Your task to perform on an android device: Go to calendar. Show me events next week Image 0: 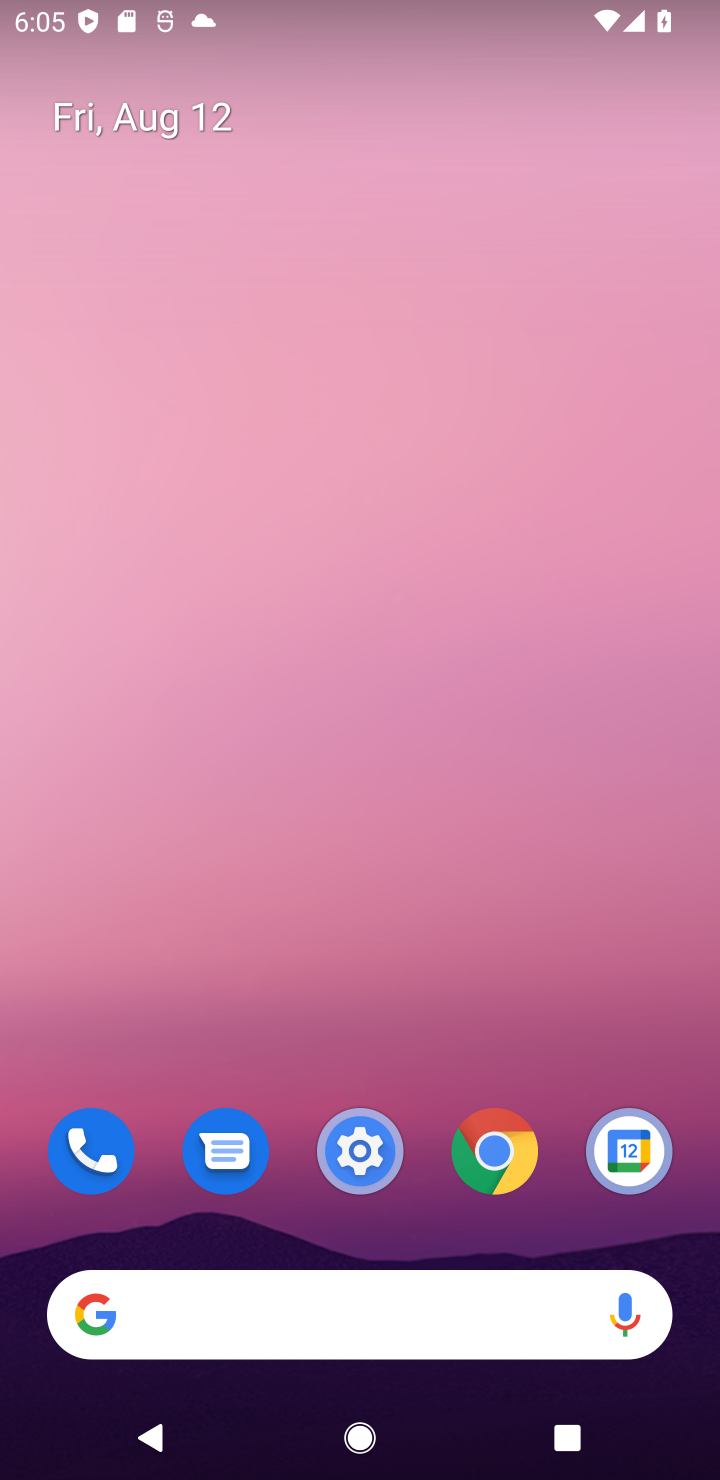
Step 0: drag from (536, 963) to (654, 120)
Your task to perform on an android device: Go to calendar. Show me events next week Image 1: 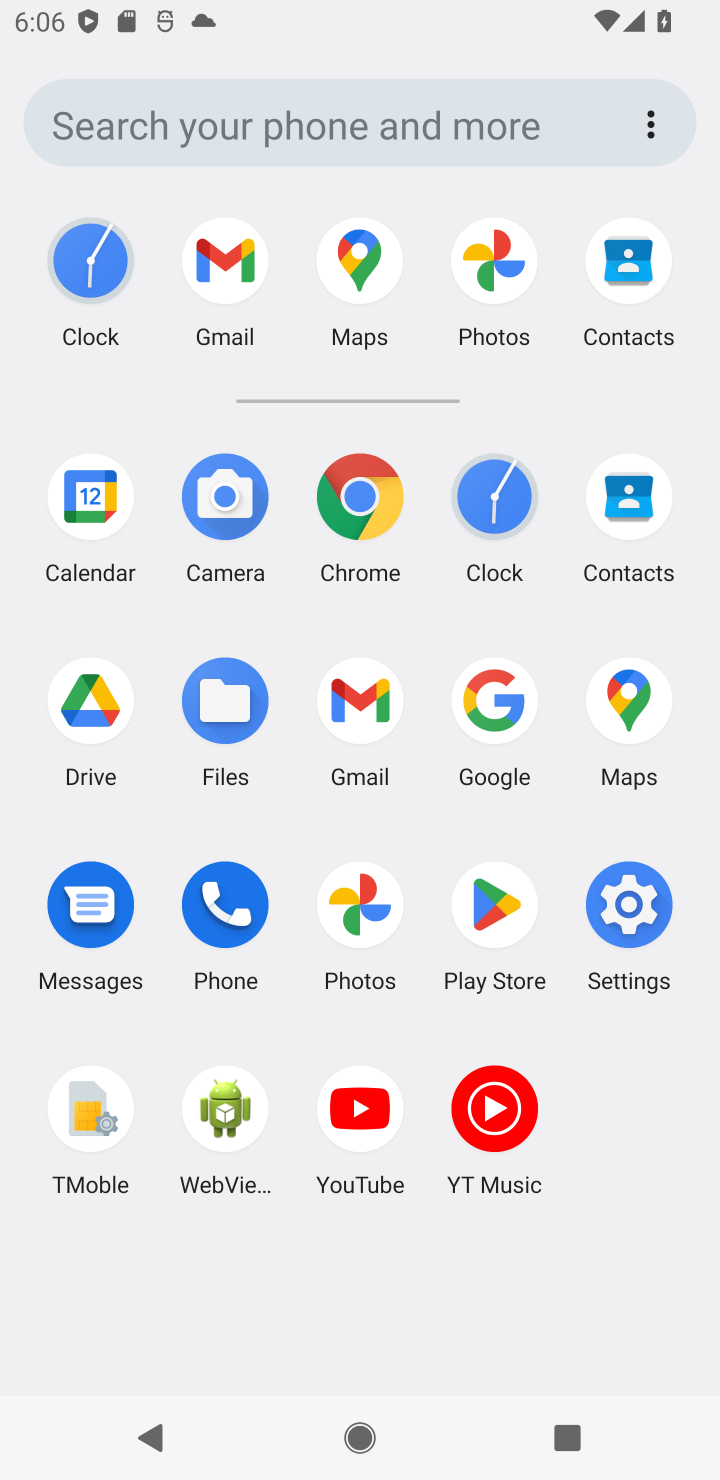
Step 1: click (94, 472)
Your task to perform on an android device: Go to calendar. Show me events next week Image 2: 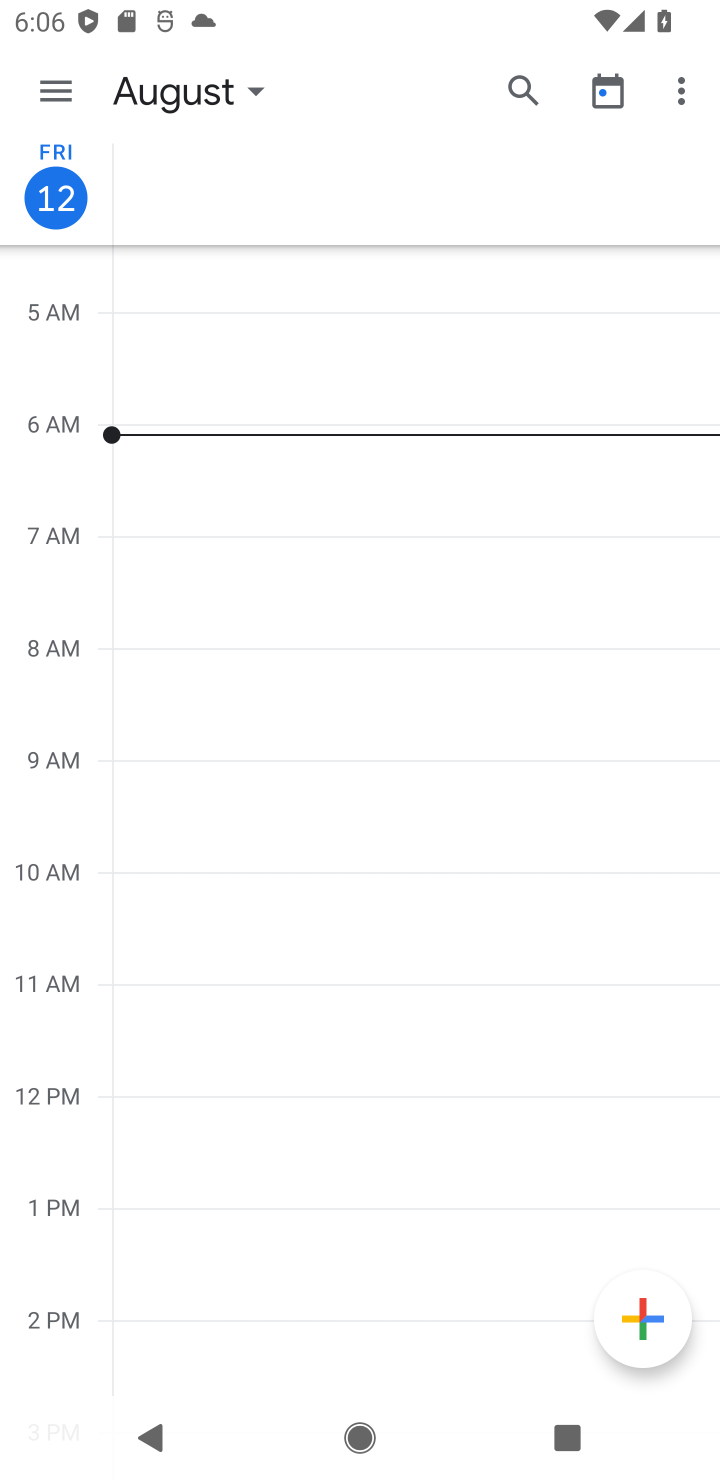
Step 2: click (219, 93)
Your task to perform on an android device: Go to calendar. Show me events next week Image 3: 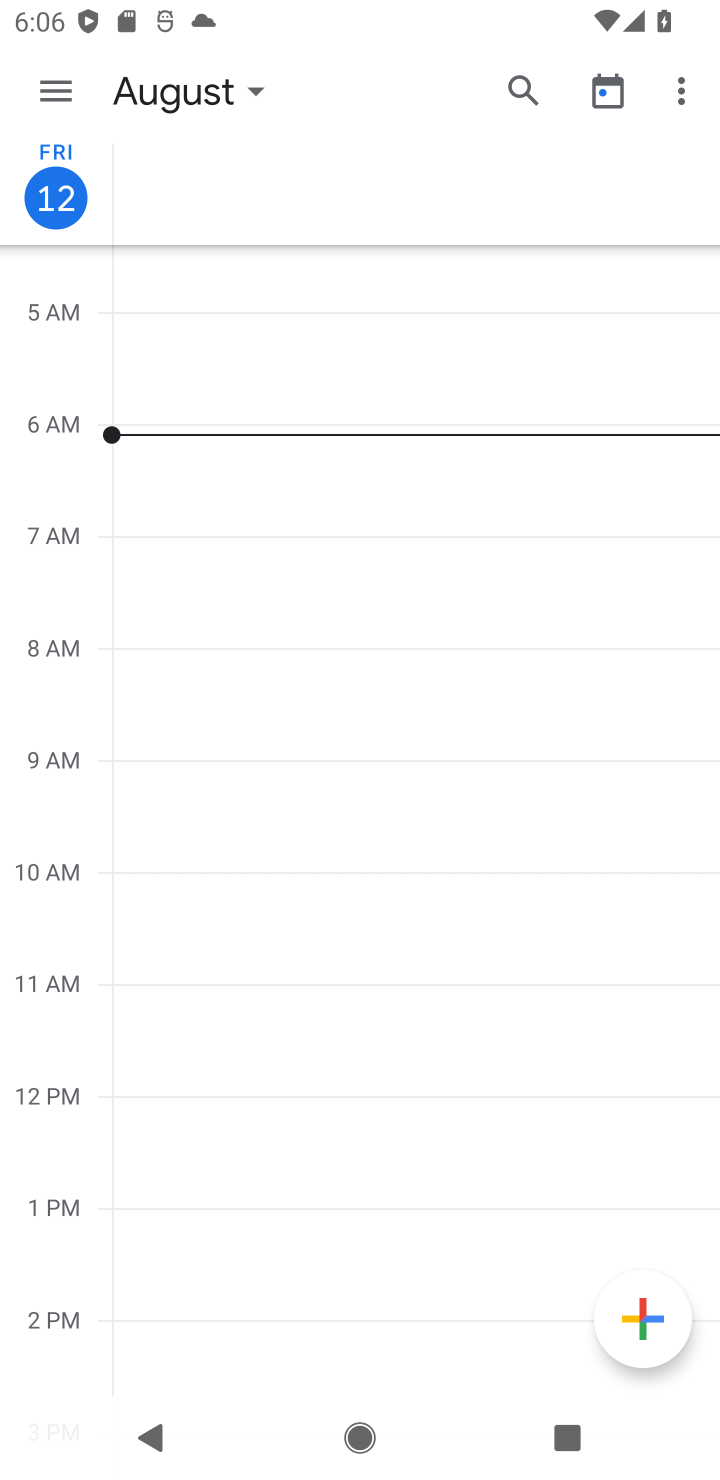
Step 3: click (219, 93)
Your task to perform on an android device: Go to calendar. Show me events next week Image 4: 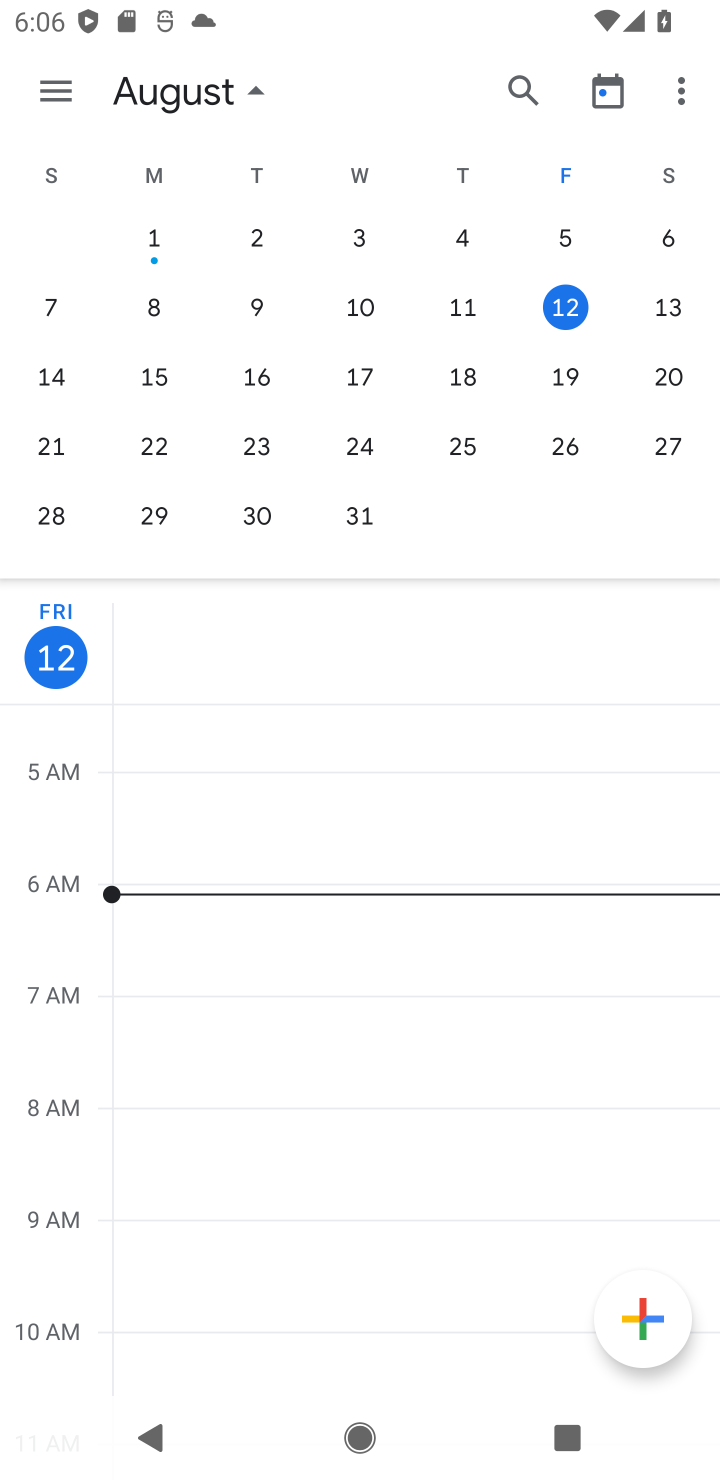
Step 4: click (368, 374)
Your task to perform on an android device: Go to calendar. Show me events next week Image 5: 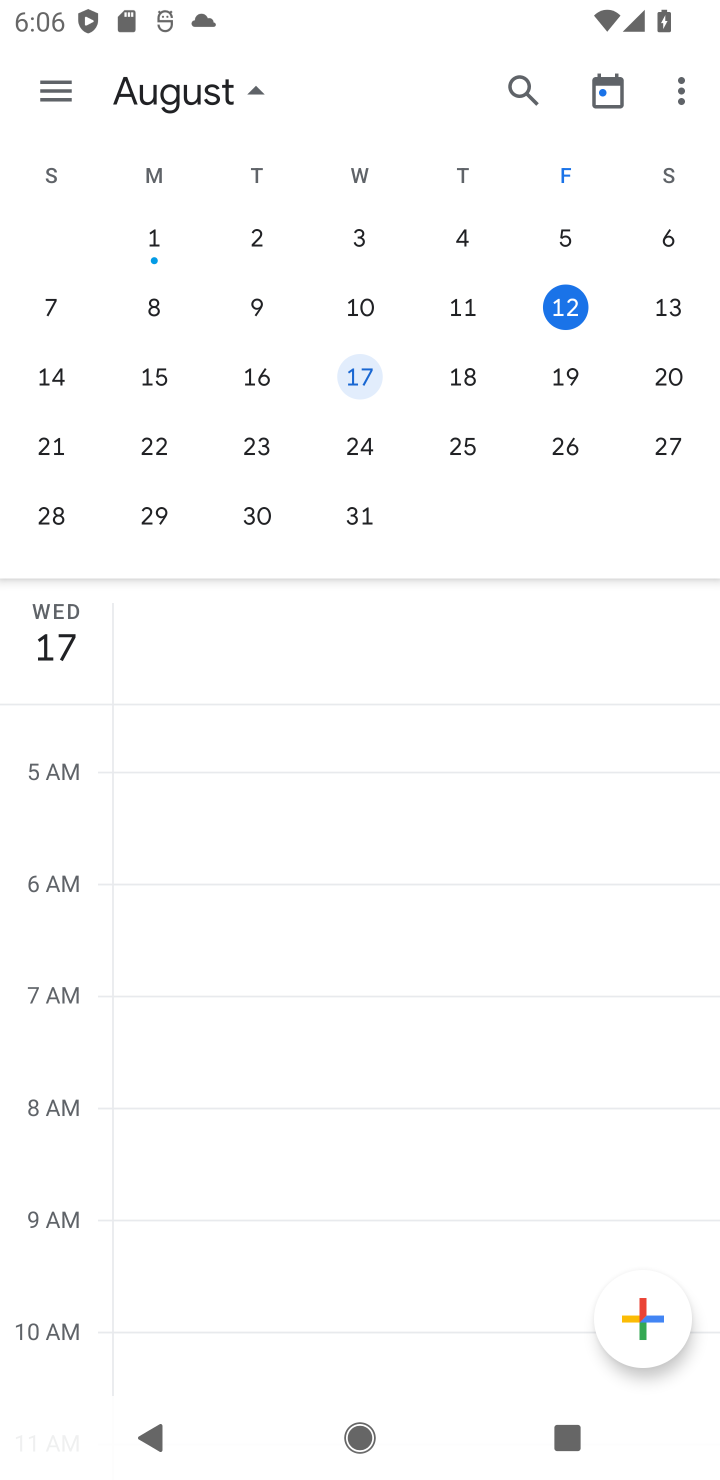
Step 5: click (76, 102)
Your task to perform on an android device: Go to calendar. Show me events next week Image 6: 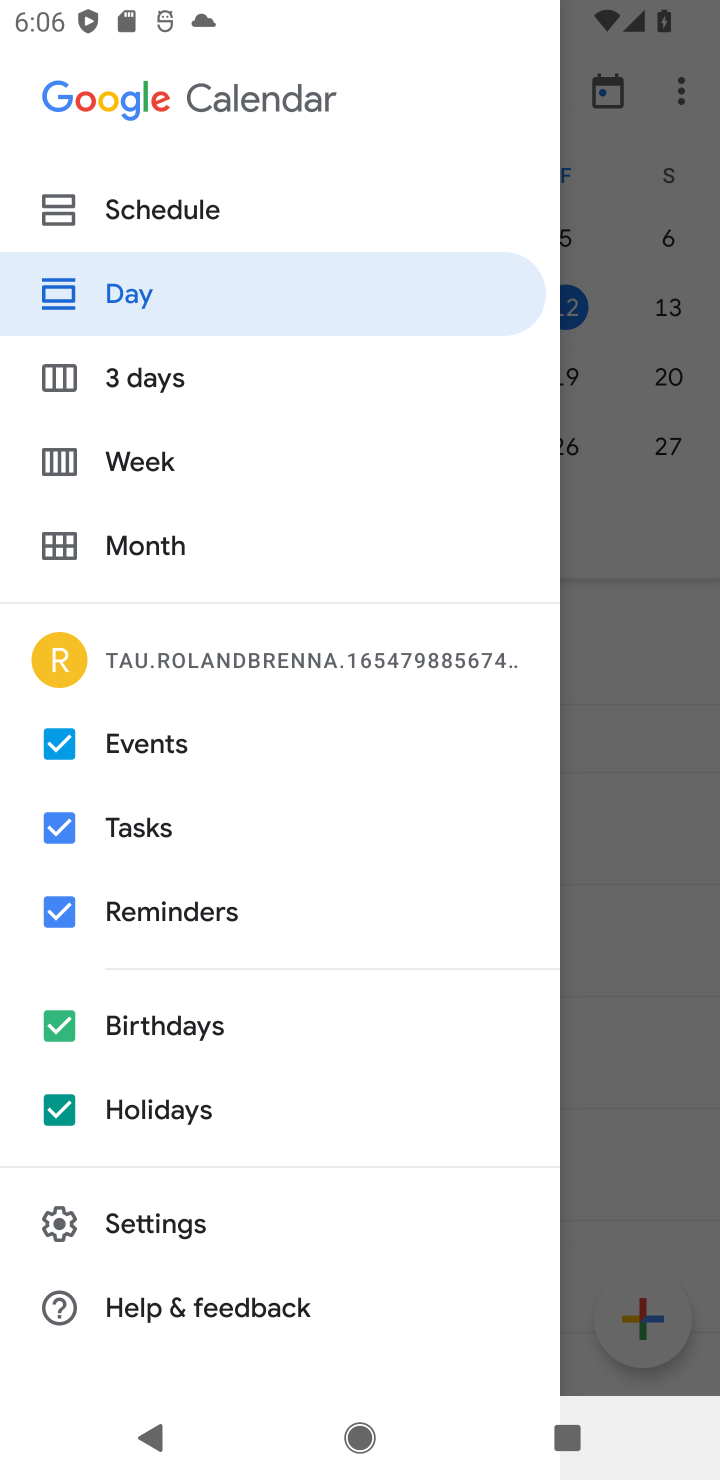
Step 6: click (141, 454)
Your task to perform on an android device: Go to calendar. Show me events next week Image 7: 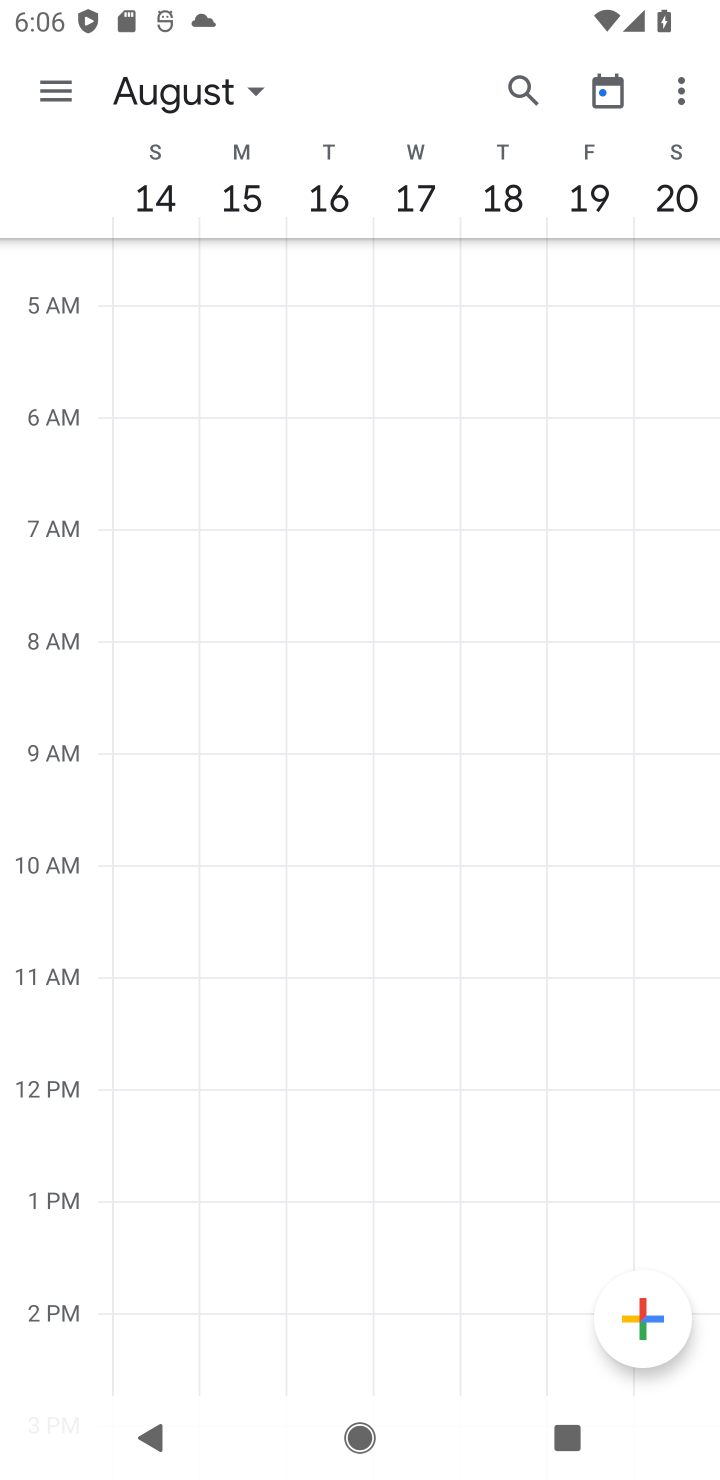
Step 7: task complete